Your task to perform on an android device: turn on data saver in the chrome app Image 0: 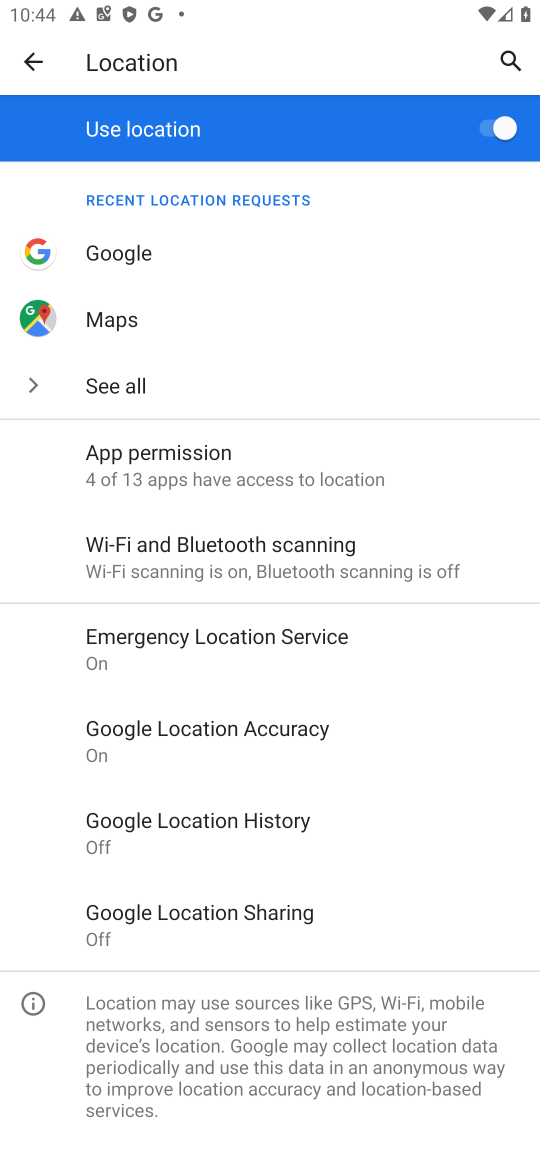
Step 0: press home button
Your task to perform on an android device: turn on data saver in the chrome app Image 1: 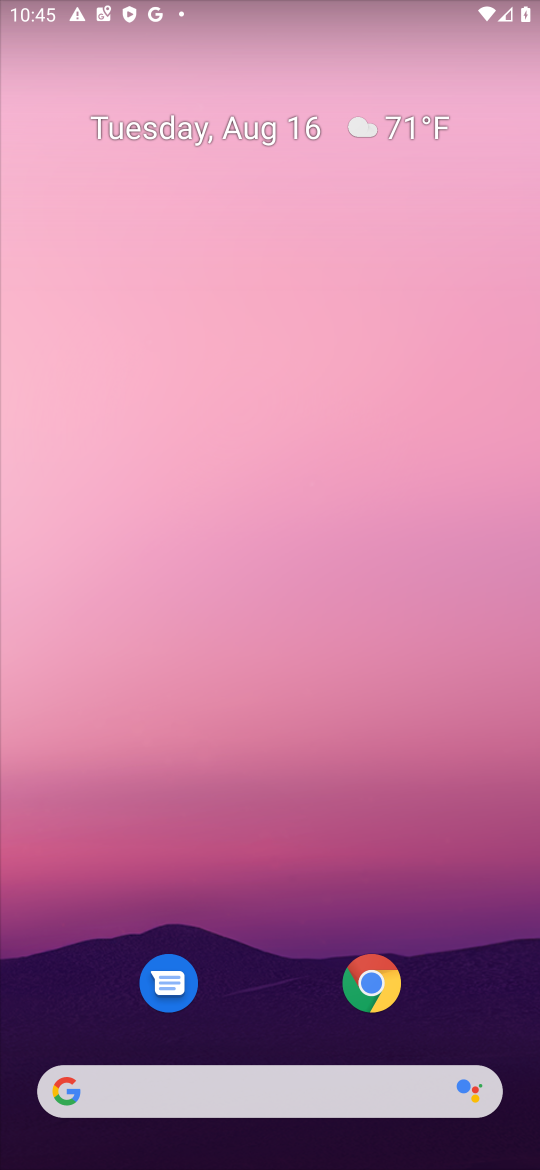
Step 1: click (363, 982)
Your task to perform on an android device: turn on data saver in the chrome app Image 2: 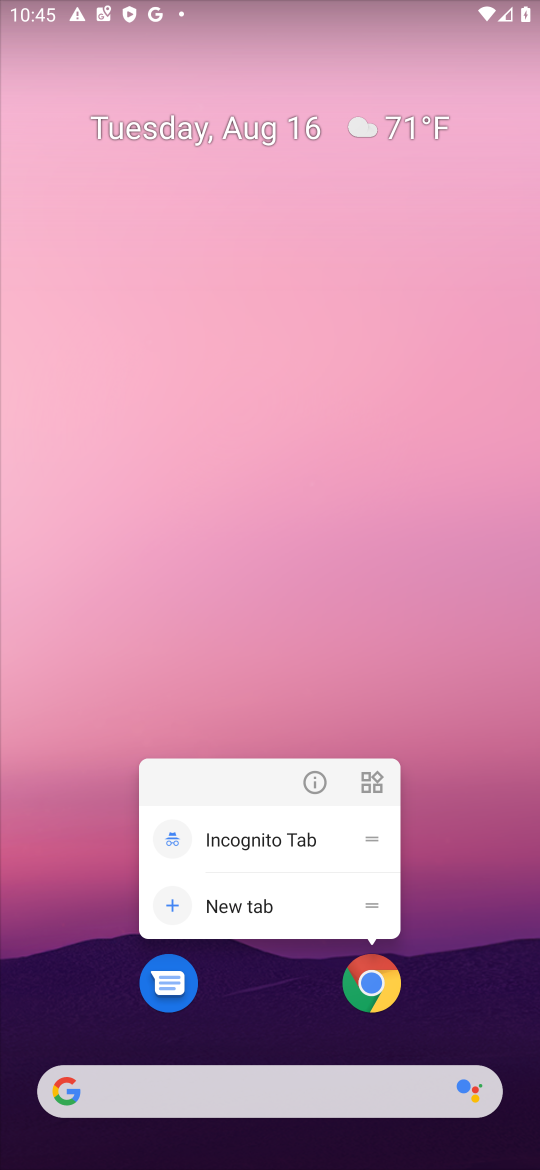
Step 2: click (363, 982)
Your task to perform on an android device: turn on data saver in the chrome app Image 3: 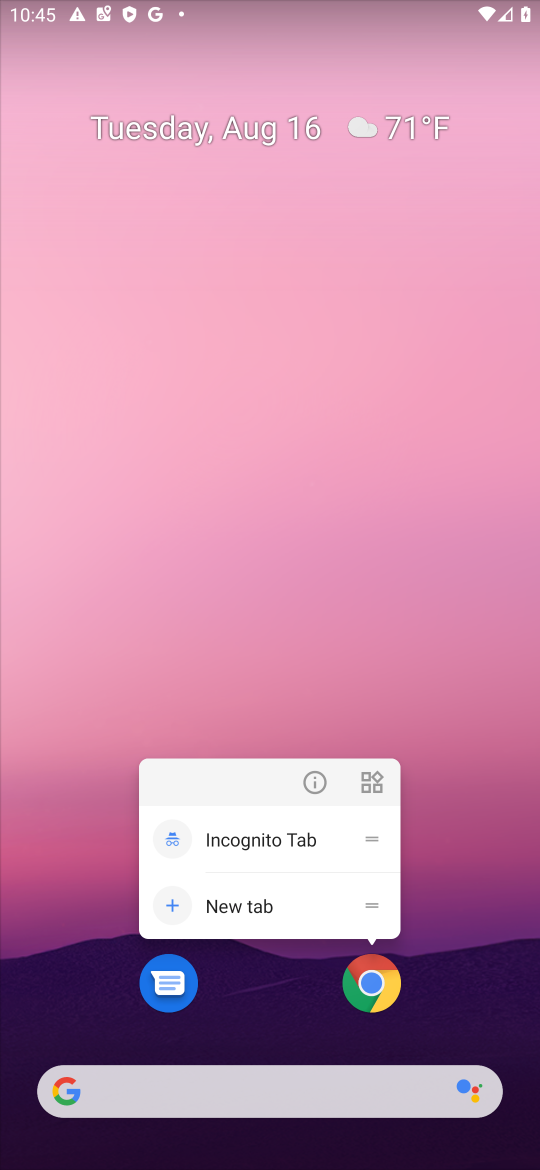
Step 3: click (363, 982)
Your task to perform on an android device: turn on data saver in the chrome app Image 4: 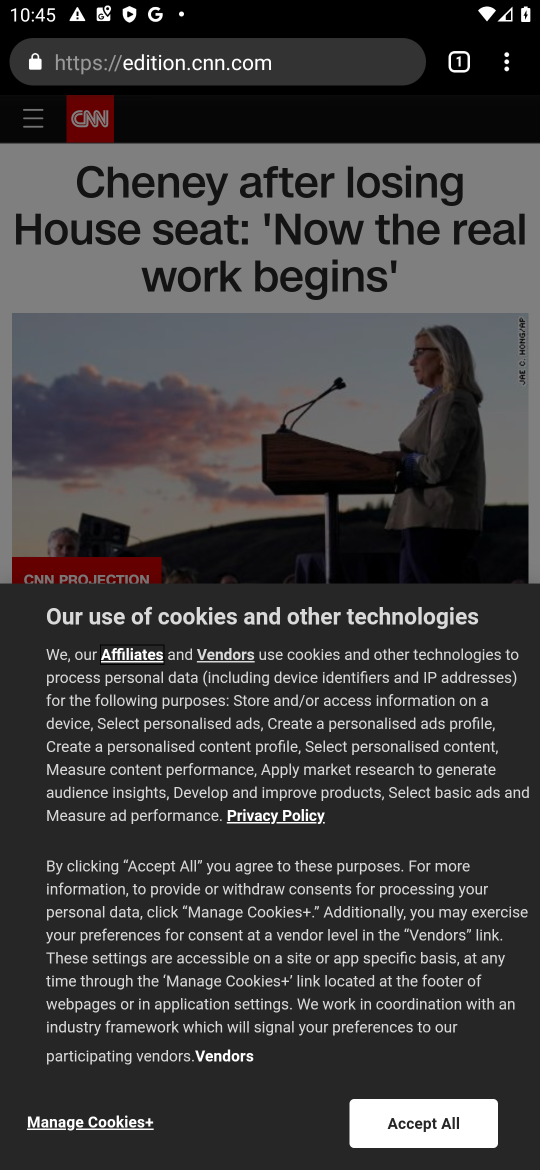
Step 4: drag from (507, 65) to (278, 761)
Your task to perform on an android device: turn on data saver in the chrome app Image 5: 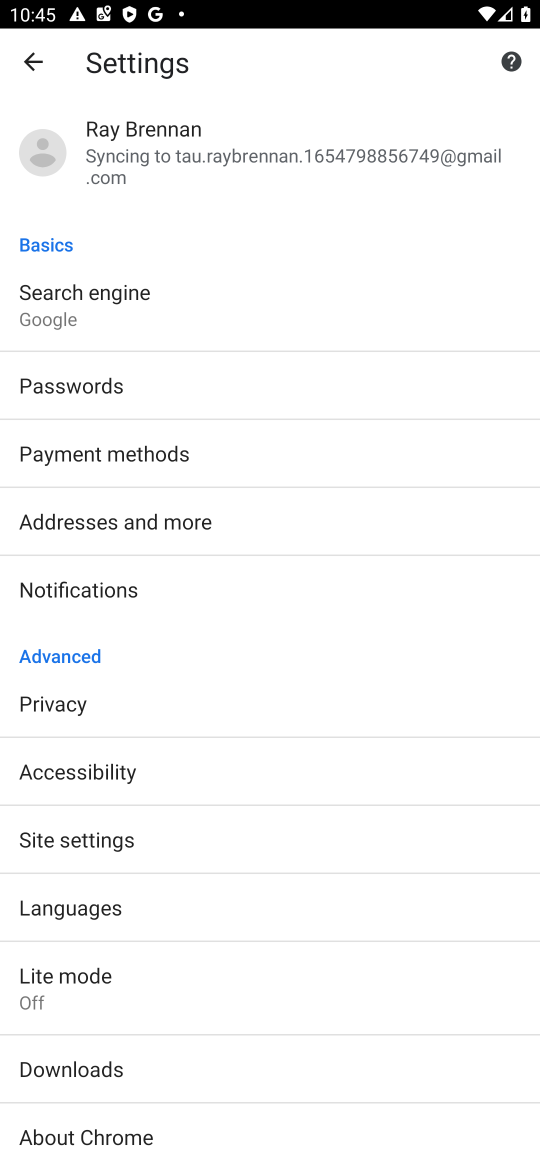
Step 5: click (95, 984)
Your task to perform on an android device: turn on data saver in the chrome app Image 6: 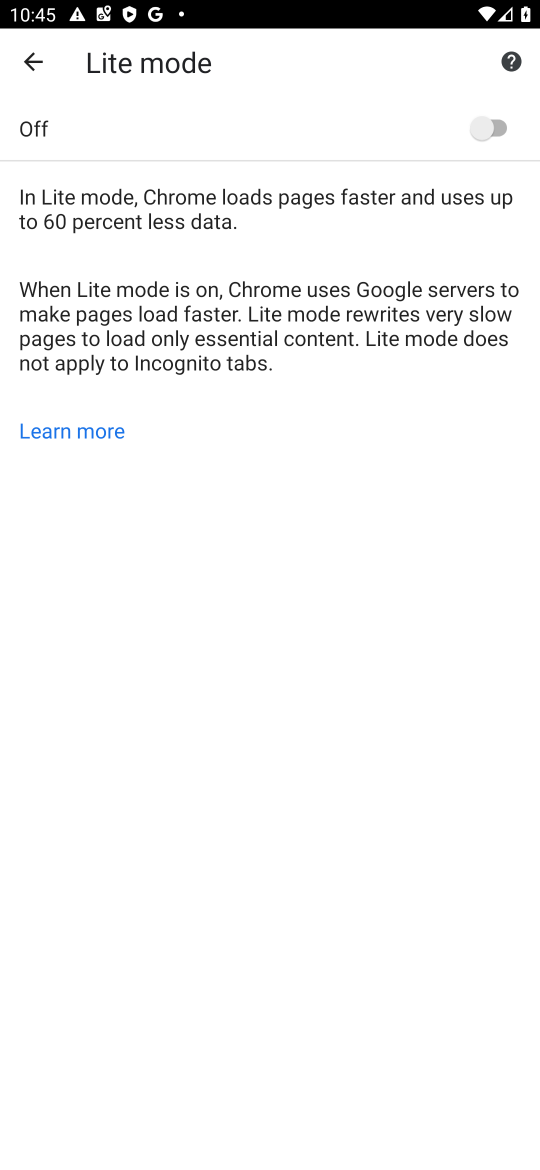
Step 6: click (489, 134)
Your task to perform on an android device: turn on data saver in the chrome app Image 7: 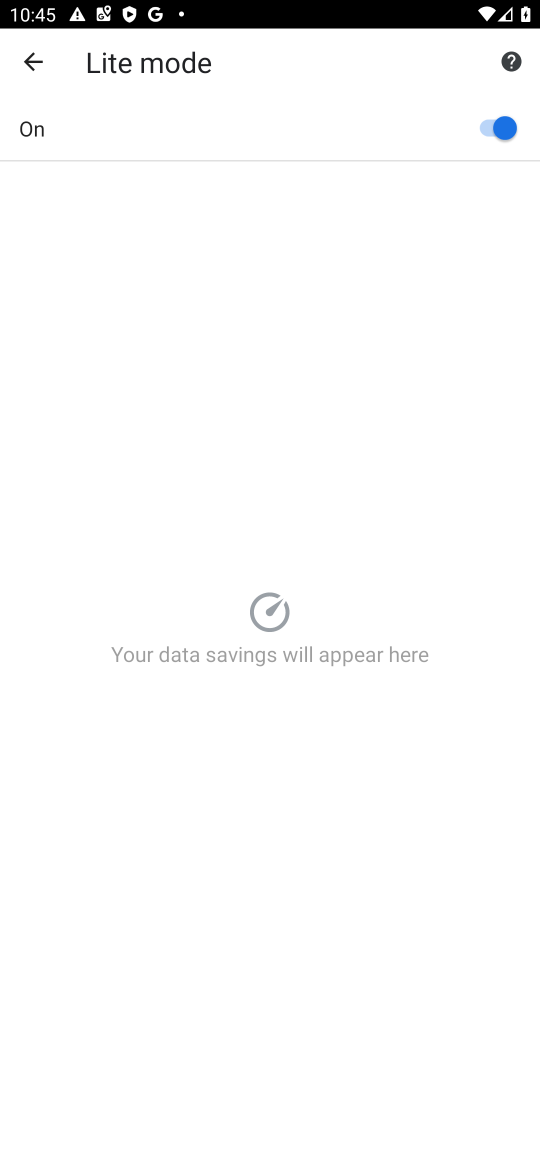
Step 7: task complete